Your task to perform on an android device: turn on data saver in the chrome app Image 0: 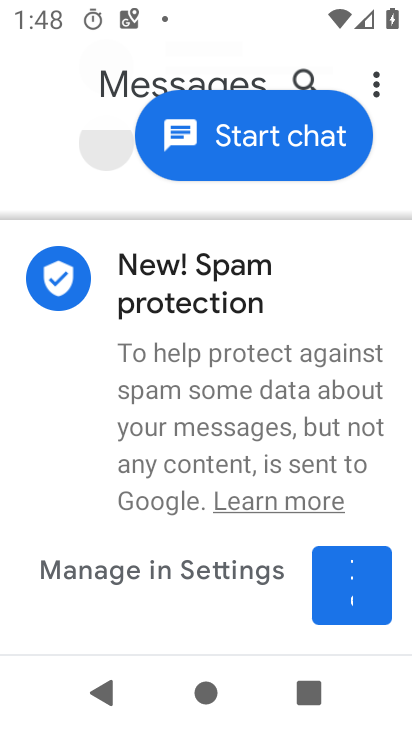
Step 0: press home button
Your task to perform on an android device: turn on data saver in the chrome app Image 1: 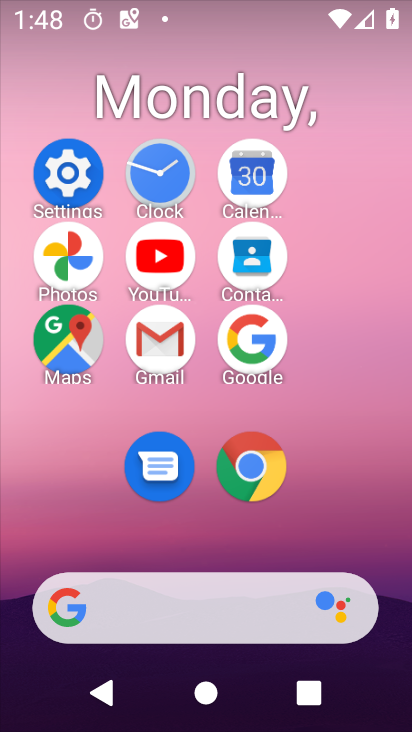
Step 1: click (249, 474)
Your task to perform on an android device: turn on data saver in the chrome app Image 2: 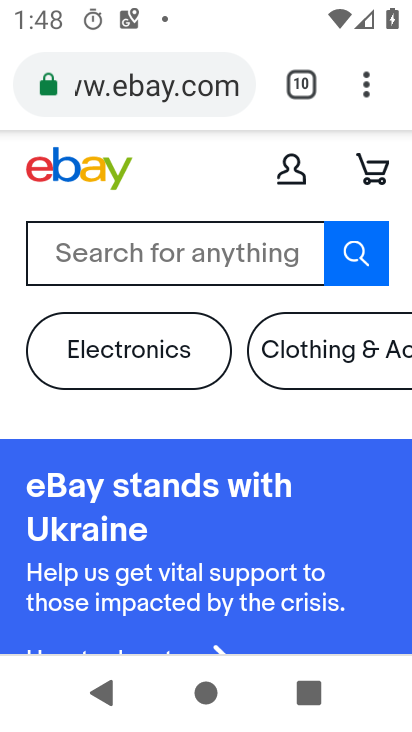
Step 2: click (383, 72)
Your task to perform on an android device: turn on data saver in the chrome app Image 3: 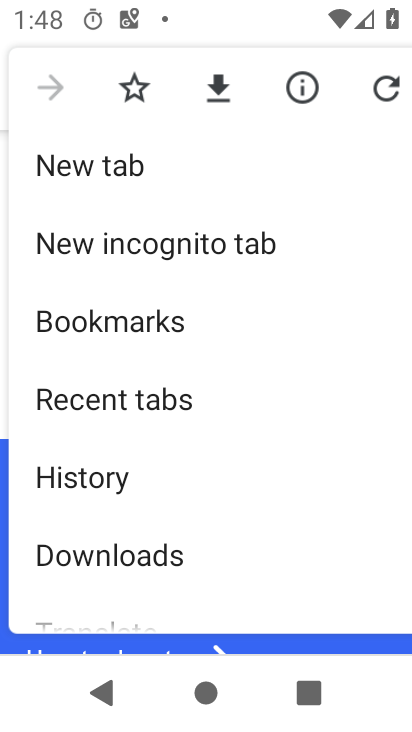
Step 3: drag from (251, 572) to (252, 197)
Your task to perform on an android device: turn on data saver in the chrome app Image 4: 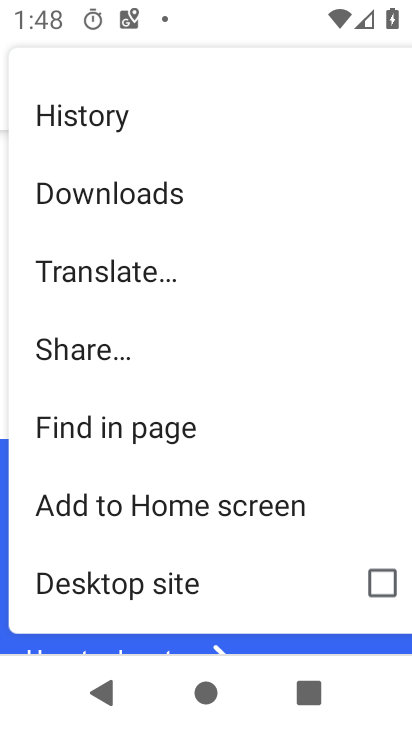
Step 4: drag from (206, 552) to (237, 191)
Your task to perform on an android device: turn on data saver in the chrome app Image 5: 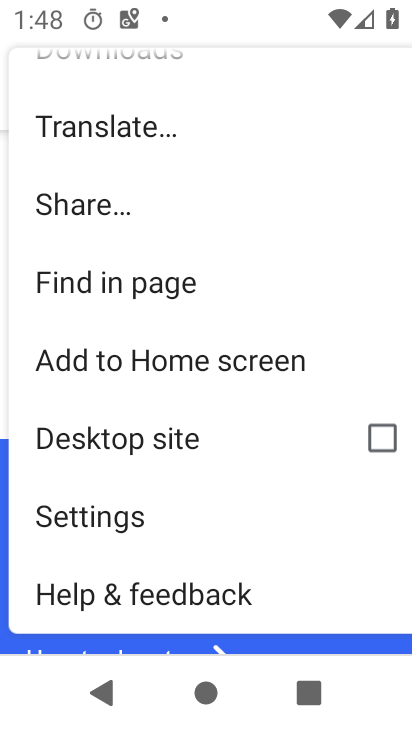
Step 5: click (172, 518)
Your task to perform on an android device: turn on data saver in the chrome app Image 6: 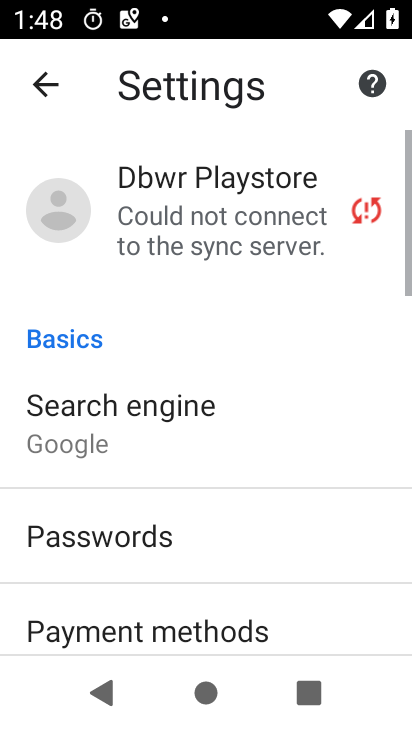
Step 6: drag from (167, 493) to (226, 178)
Your task to perform on an android device: turn on data saver in the chrome app Image 7: 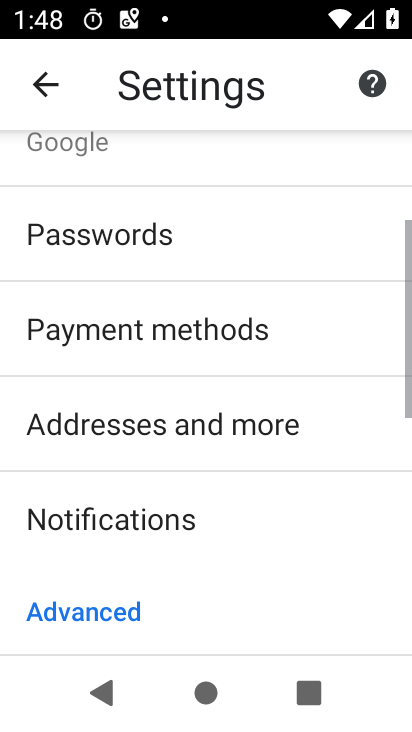
Step 7: drag from (189, 580) to (242, 159)
Your task to perform on an android device: turn on data saver in the chrome app Image 8: 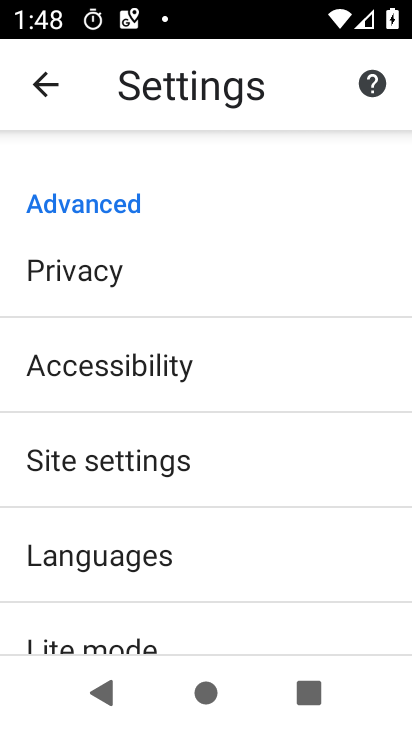
Step 8: drag from (176, 545) to (239, 170)
Your task to perform on an android device: turn on data saver in the chrome app Image 9: 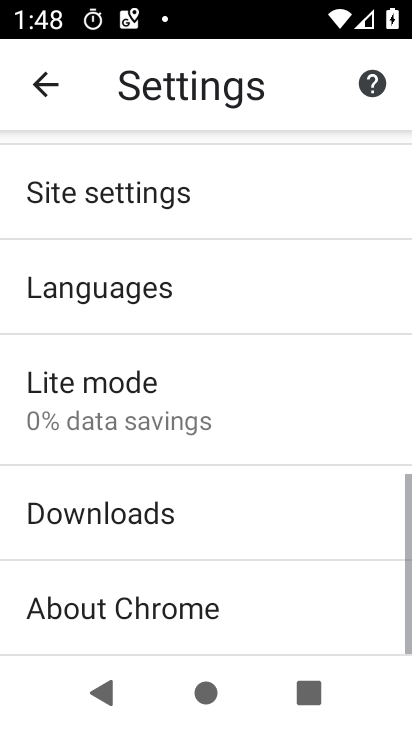
Step 9: click (181, 441)
Your task to perform on an android device: turn on data saver in the chrome app Image 10: 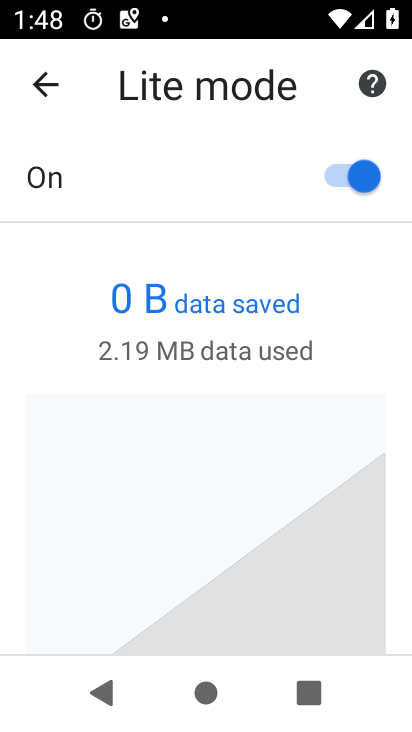
Step 10: task complete